Your task to perform on an android device: Go to Amazon Image 0: 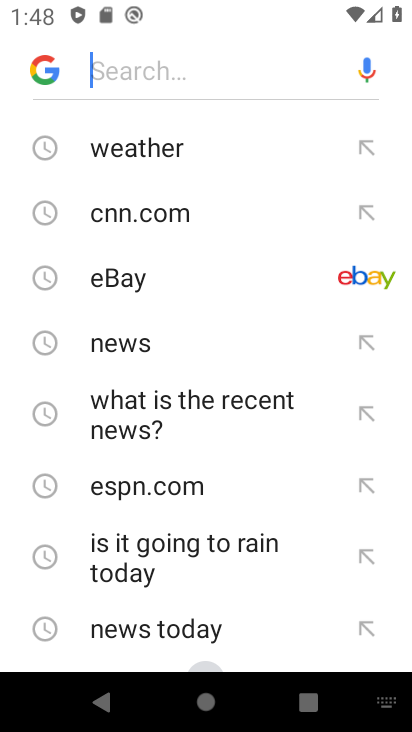
Step 0: press back button
Your task to perform on an android device: Go to Amazon Image 1: 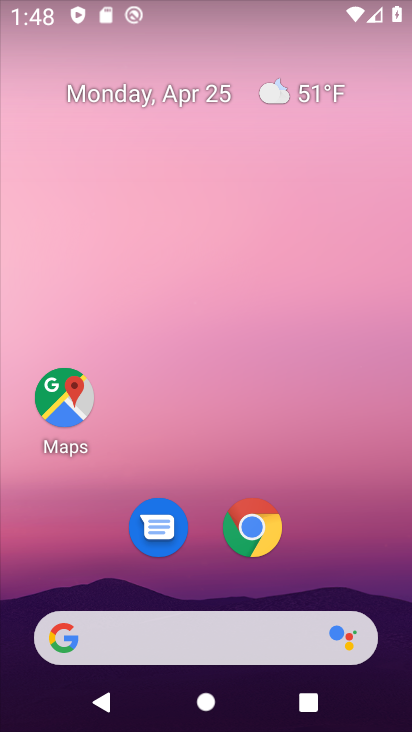
Step 1: drag from (296, 217) to (261, 7)
Your task to perform on an android device: Go to Amazon Image 2: 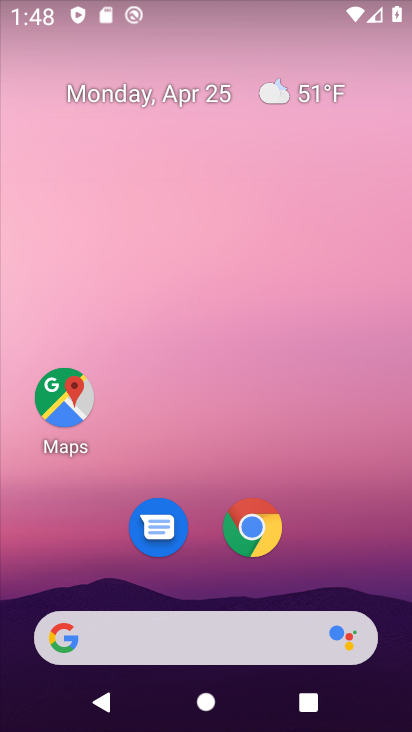
Step 2: click (249, 533)
Your task to perform on an android device: Go to Amazon Image 3: 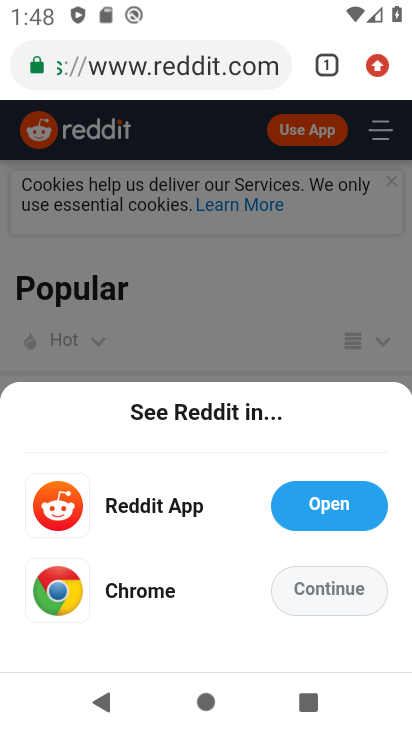
Step 3: click (209, 59)
Your task to perform on an android device: Go to Amazon Image 4: 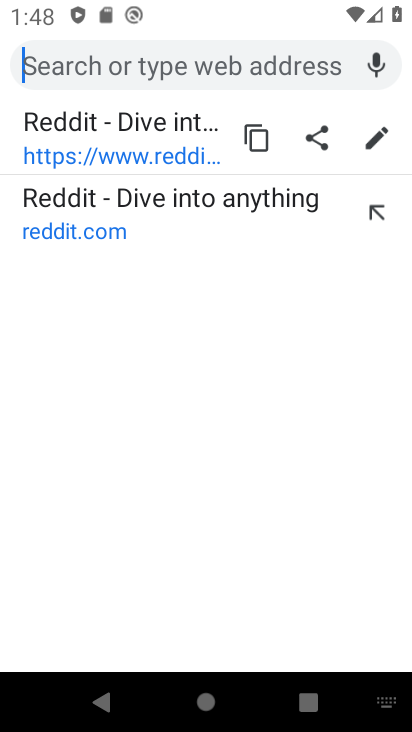
Step 4: type "Amazon"
Your task to perform on an android device: Go to Amazon Image 5: 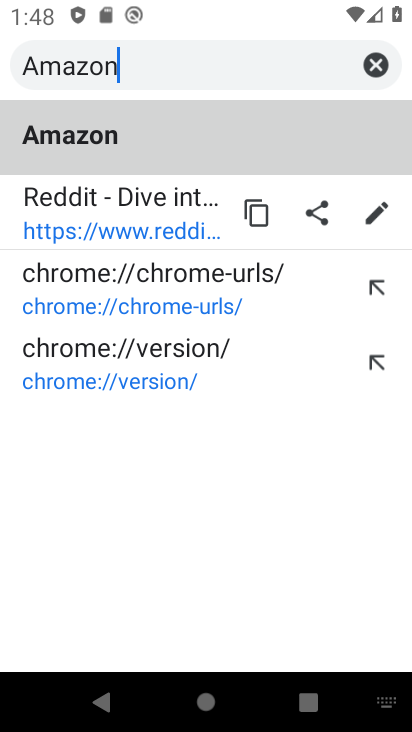
Step 5: type ""
Your task to perform on an android device: Go to Amazon Image 6: 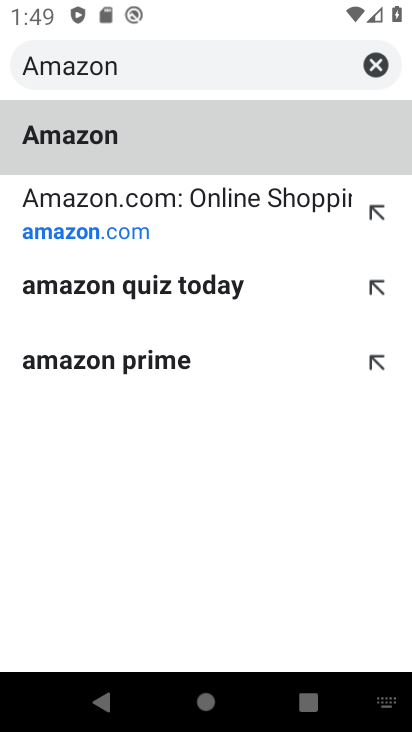
Step 6: click (191, 204)
Your task to perform on an android device: Go to Amazon Image 7: 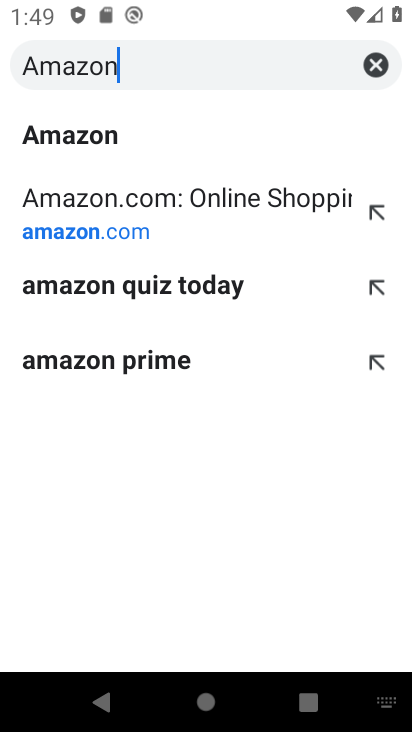
Step 7: click (107, 201)
Your task to perform on an android device: Go to Amazon Image 8: 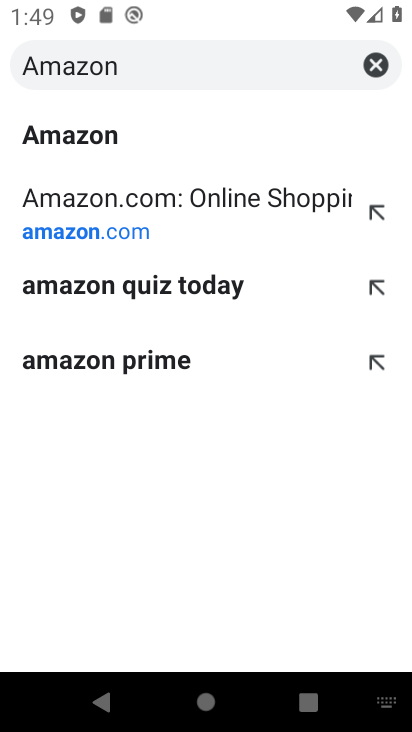
Step 8: click (111, 206)
Your task to perform on an android device: Go to Amazon Image 9: 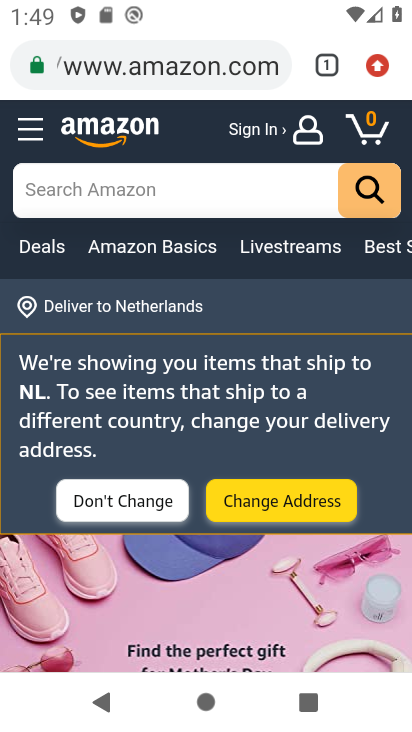
Step 9: task complete